Your task to perform on an android device: Search for pizza restaurants on Maps Image 0: 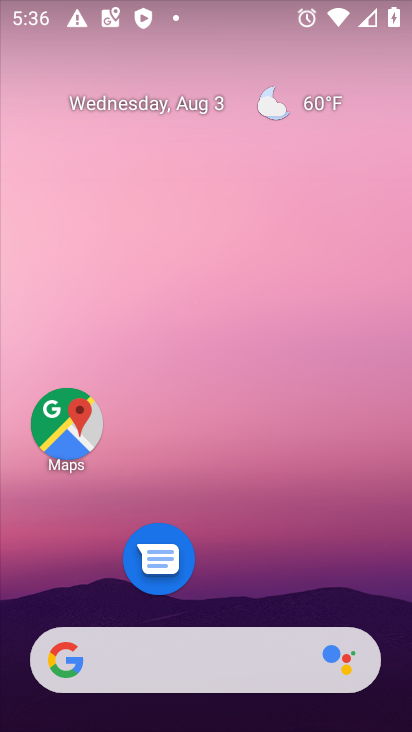
Step 0: drag from (241, 593) to (239, 208)
Your task to perform on an android device: Search for pizza restaurants on Maps Image 1: 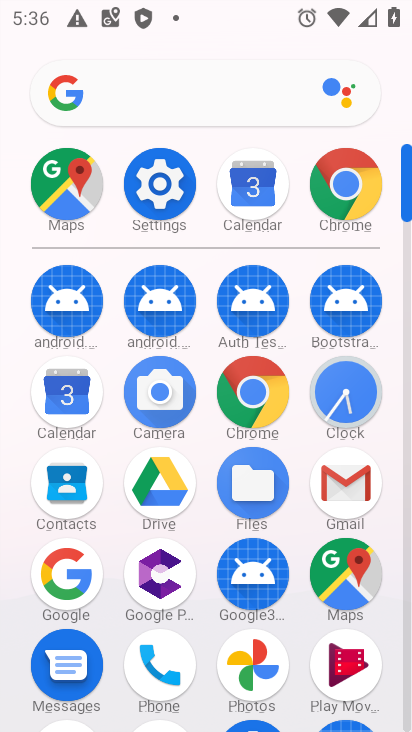
Step 1: click (324, 573)
Your task to perform on an android device: Search for pizza restaurants on Maps Image 2: 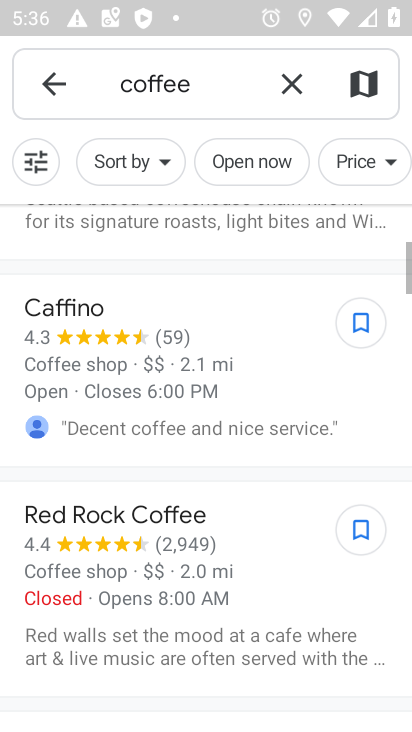
Step 2: click (371, 87)
Your task to perform on an android device: Search for pizza restaurants on Maps Image 3: 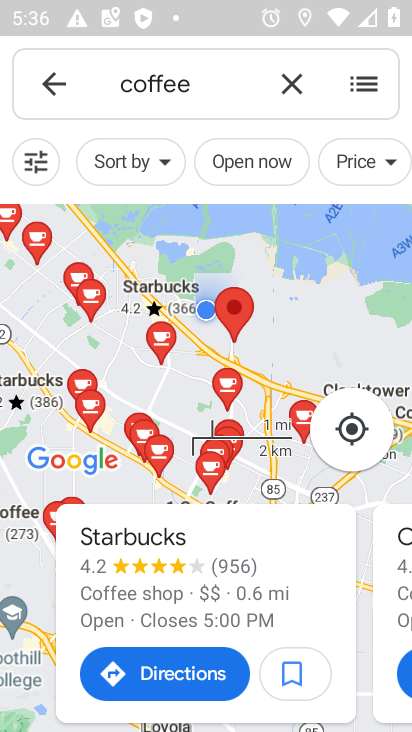
Step 3: click (285, 90)
Your task to perform on an android device: Search for pizza restaurants on Maps Image 4: 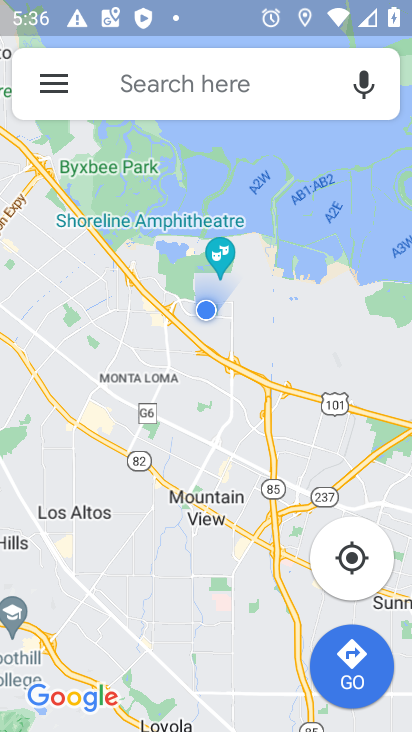
Step 4: click (224, 88)
Your task to perform on an android device: Search for pizza restaurants on Maps Image 5: 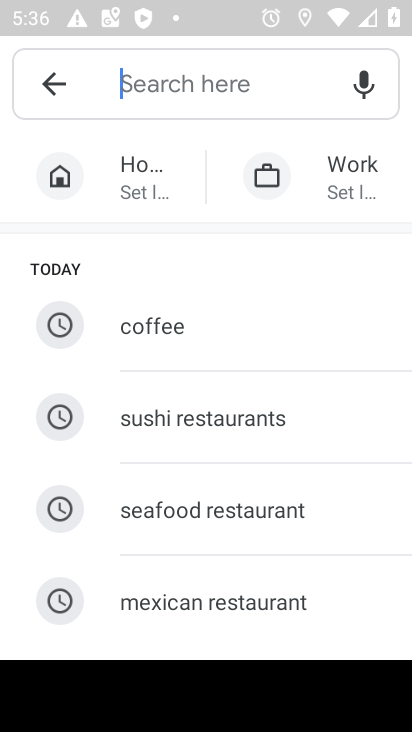
Step 5: drag from (188, 612) to (187, 243)
Your task to perform on an android device: Search for pizza restaurants on Maps Image 6: 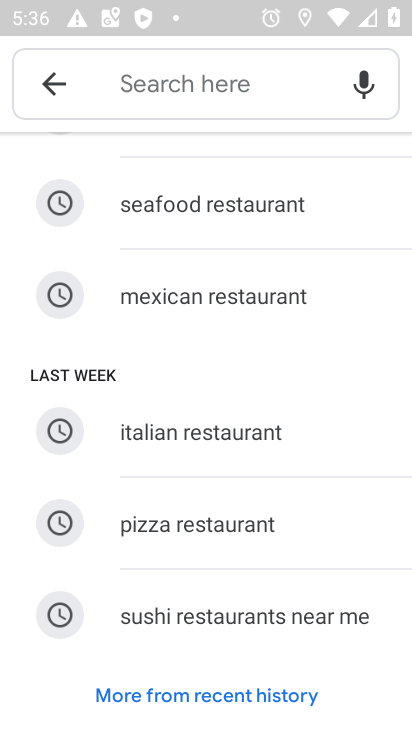
Step 6: drag from (172, 692) to (186, 322)
Your task to perform on an android device: Search for pizza restaurants on Maps Image 7: 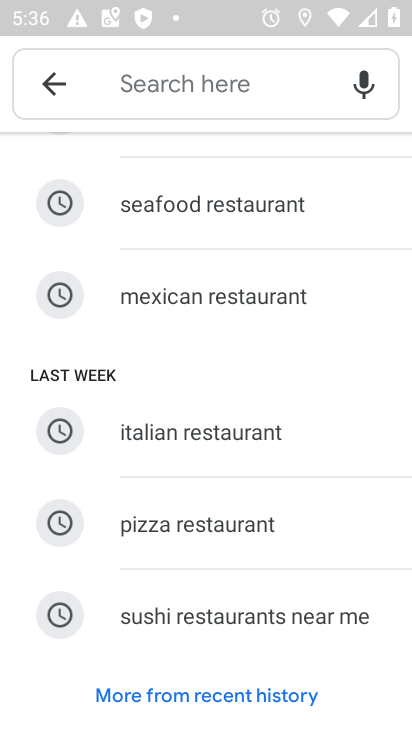
Step 7: click (170, 518)
Your task to perform on an android device: Search for pizza restaurants on Maps Image 8: 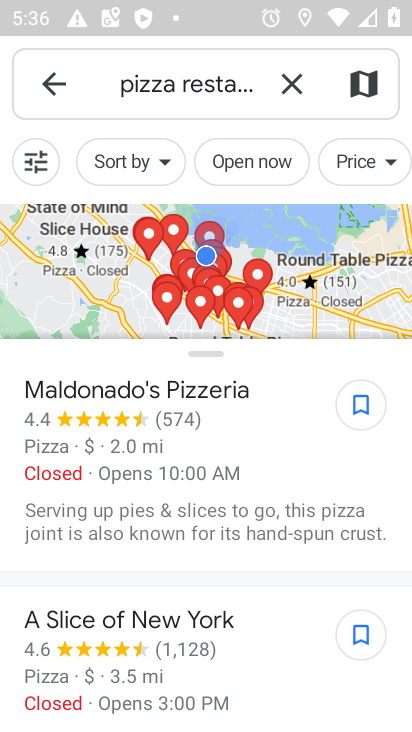
Step 8: task complete